Your task to perform on an android device: turn off smart reply in the gmail app Image 0: 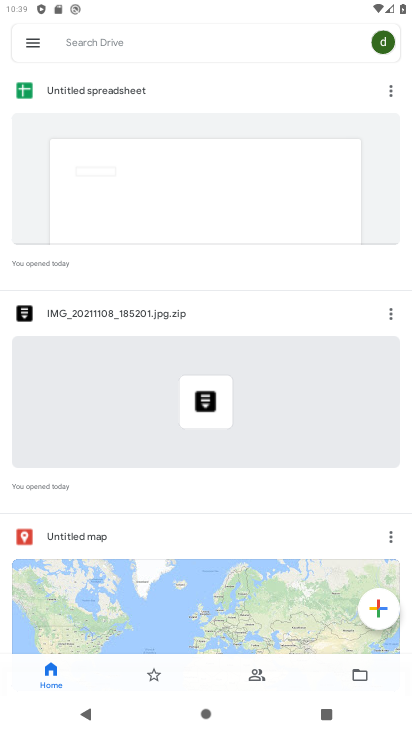
Step 0: press back button
Your task to perform on an android device: turn off smart reply in the gmail app Image 1: 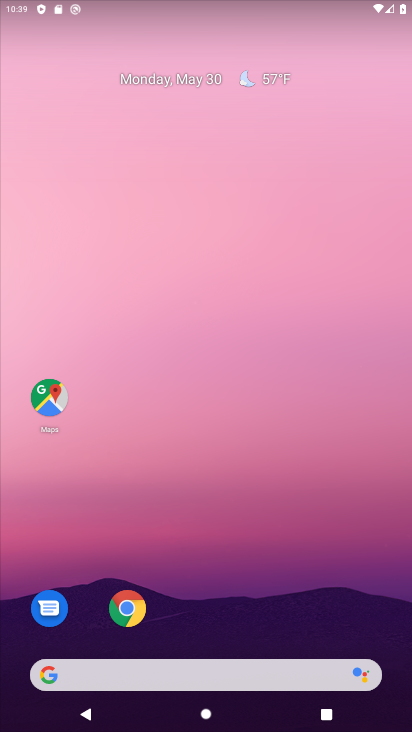
Step 1: drag from (299, 556) to (282, 35)
Your task to perform on an android device: turn off smart reply in the gmail app Image 2: 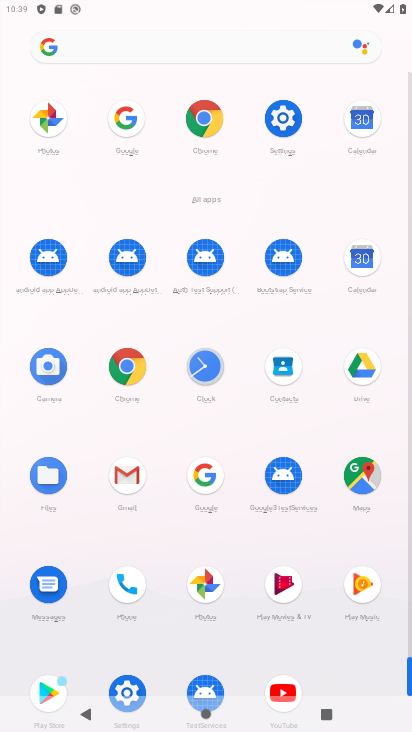
Step 2: drag from (3, 570) to (27, 216)
Your task to perform on an android device: turn off smart reply in the gmail app Image 3: 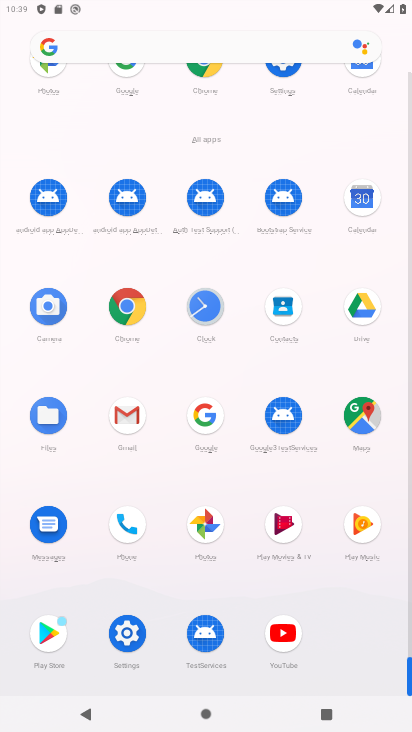
Step 3: click (127, 412)
Your task to perform on an android device: turn off smart reply in the gmail app Image 4: 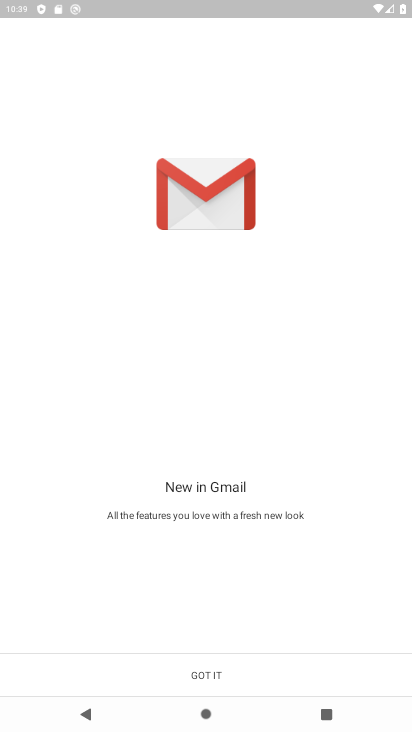
Step 4: click (212, 677)
Your task to perform on an android device: turn off smart reply in the gmail app Image 5: 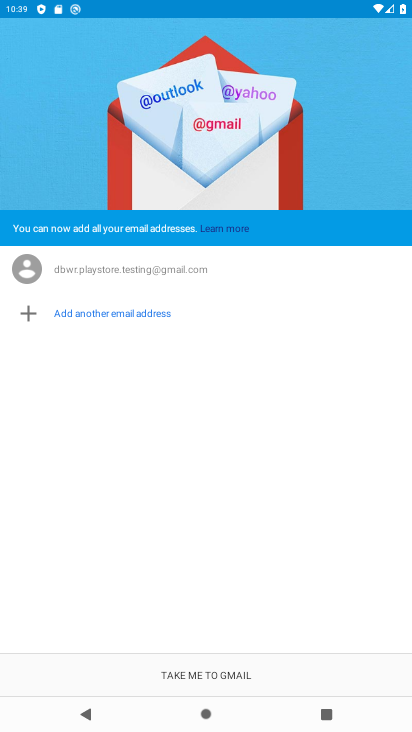
Step 5: click (211, 666)
Your task to perform on an android device: turn off smart reply in the gmail app Image 6: 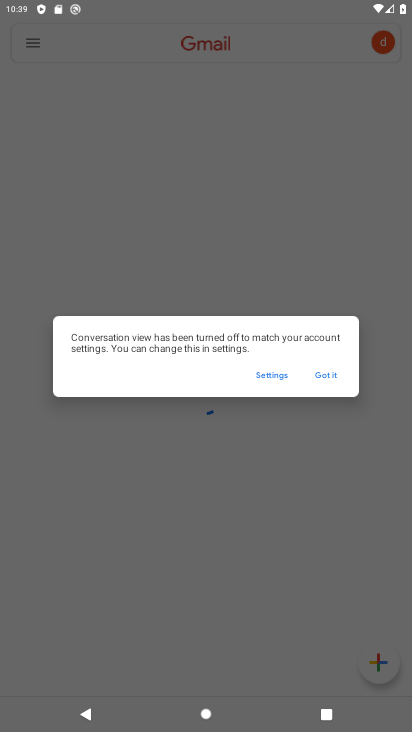
Step 6: click (320, 372)
Your task to perform on an android device: turn off smart reply in the gmail app Image 7: 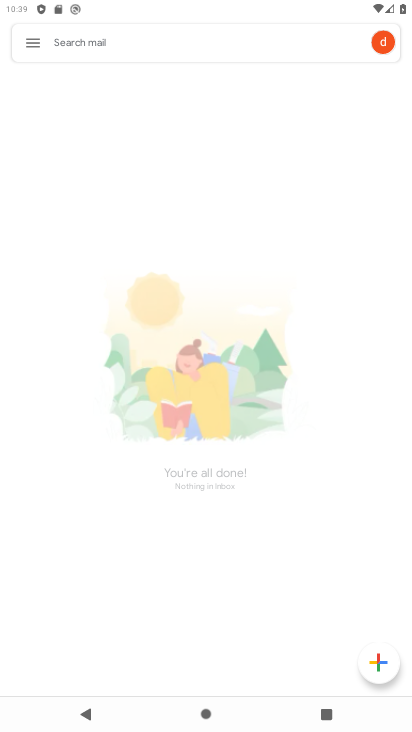
Step 7: click (32, 41)
Your task to perform on an android device: turn off smart reply in the gmail app Image 8: 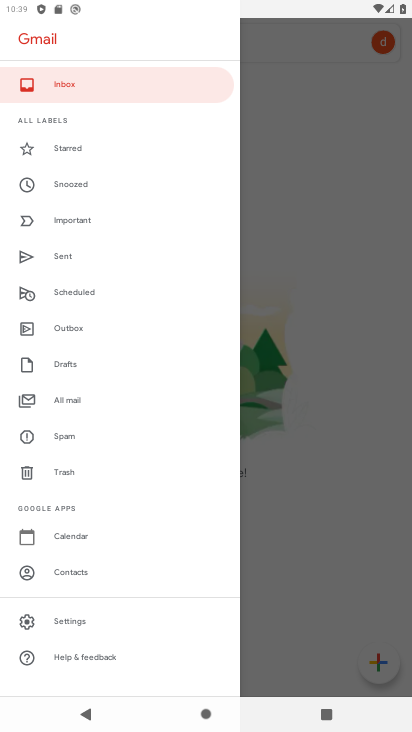
Step 8: click (86, 621)
Your task to perform on an android device: turn off smart reply in the gmail app Image 9: 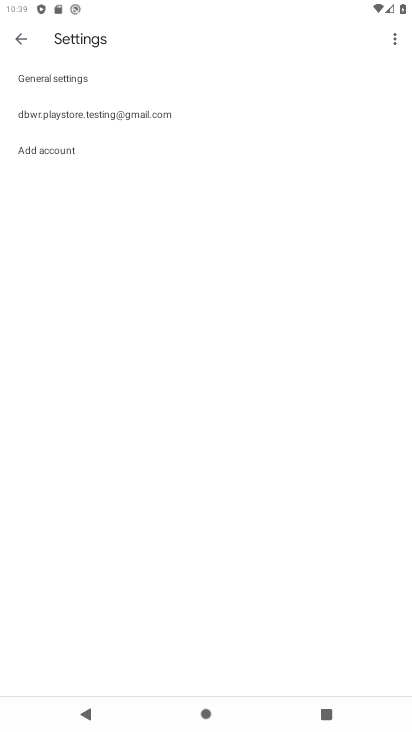
Step 9: click (108, 106)
Your task to perform on an android device: turn off smart reply in the gmail app Image 10: 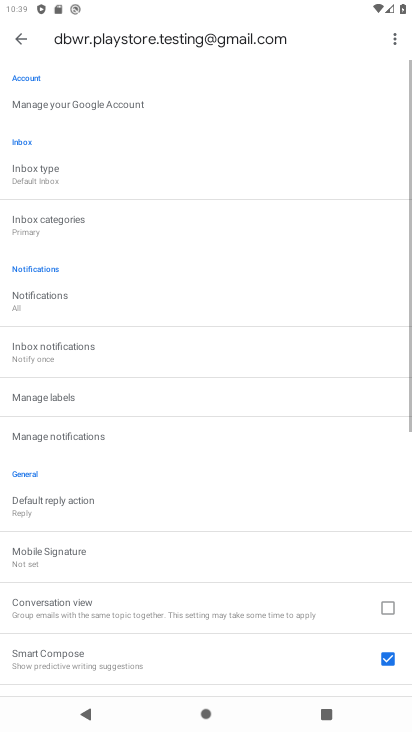
Step 10: drag from (267, 636) to (267, 215)
Your task to perform on an android device: turn off smart reply in the gmail app Image 11: 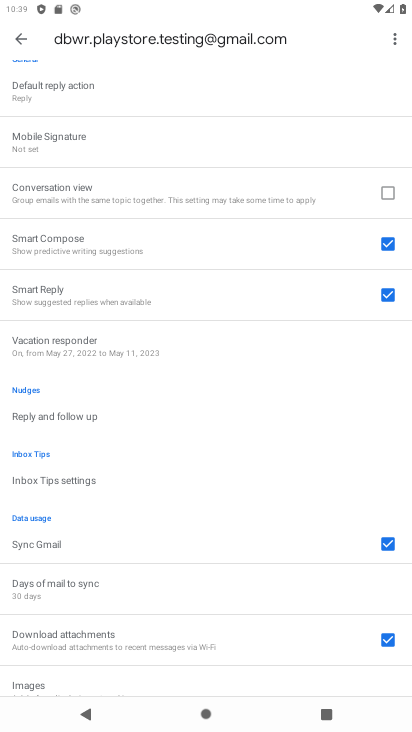
Step 11: click (396, 293)
Your task to perform on an android device: turn off smart reply in the gmail app Image 12: 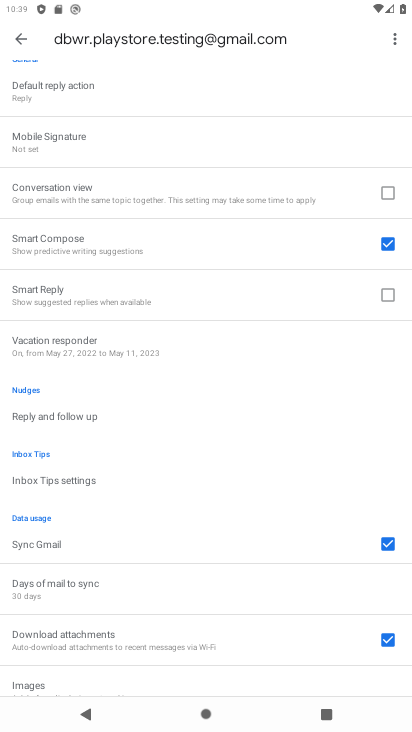
Step 12: task complete